Your task to perform on an android device: toggle notifications settings in the gmail app Image 0: 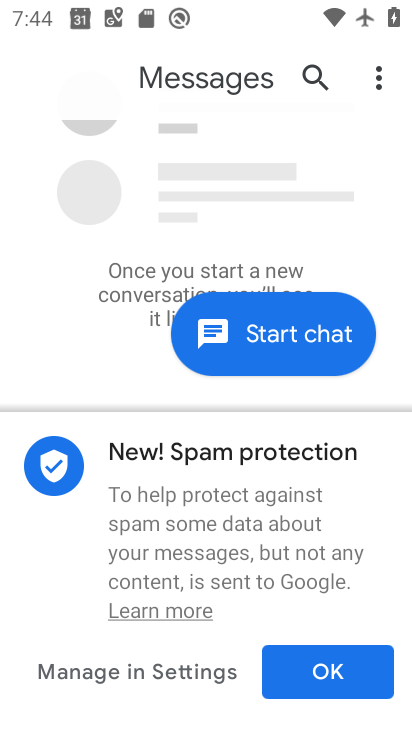
Step 0: press home button
Your task to perform on an android device: toggle notifications settings in the gmail app Image 1: 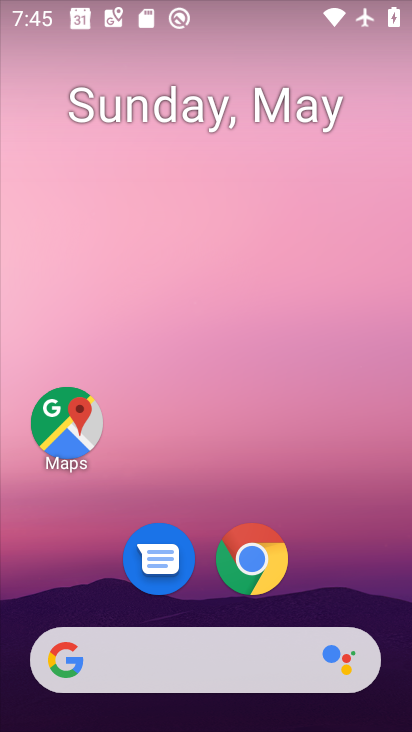
Step 1: drag from (200, 663) to (311, 195)
Your task to perform on an android device: toggle notifications settings in the gmail app Image 2: 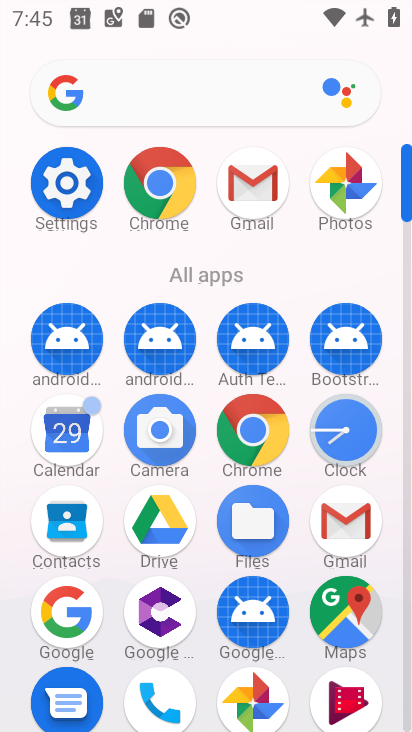
Step 2: click (247, 195)
Your task to perform on an android device: toggle notifications settings in the gmail app Image 3: 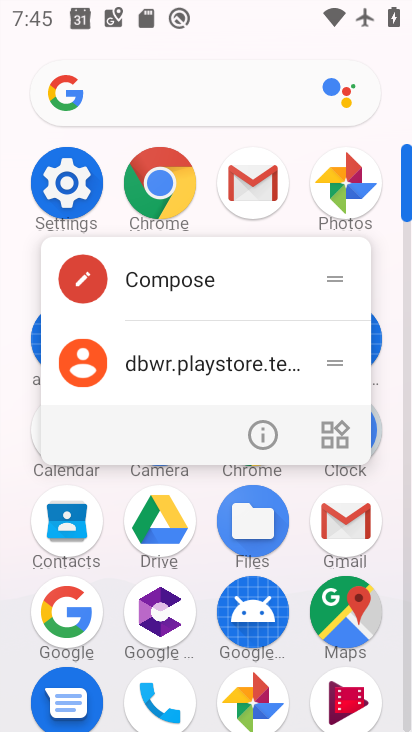
Step 3: click (252, 184)
Your task to perform on an android device: toggle notifications settings in the gmail app Image 4: 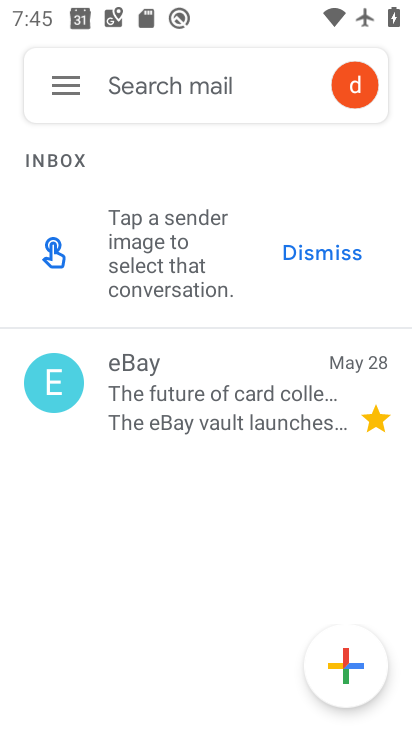
Step 4: click (71, 81)
Your task to perform on an android device: toggle notifications settings in the gmail app Image 5: 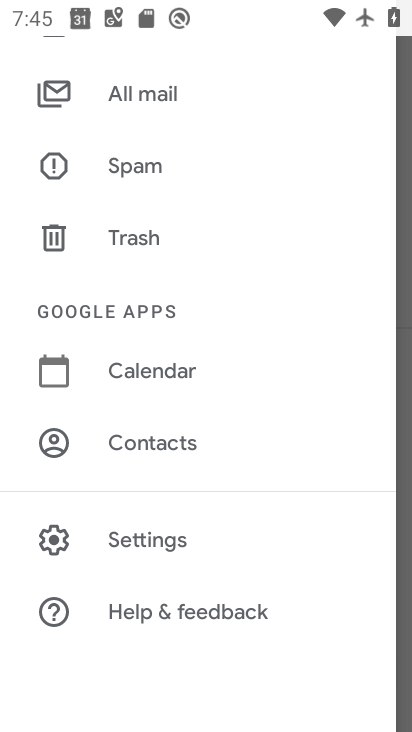
Step 5: click (159, 539)
Your task to perform on an android device: toggle notifications settings in the gmail app Image 6: 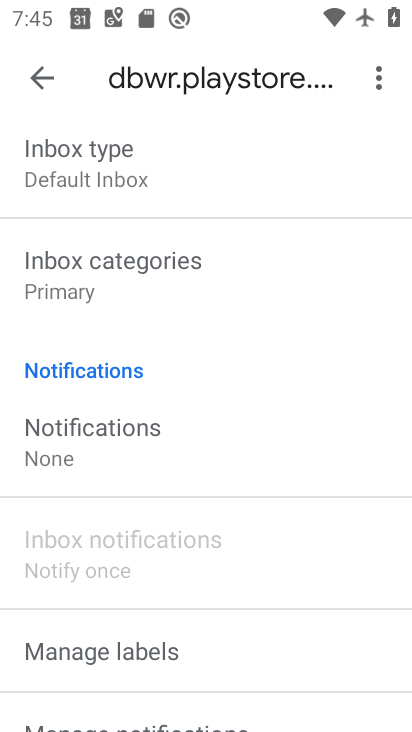
Step 6: click (101, 433)
Your task to perform on an android device: toggle notifications settings in the gmail app Image 7: 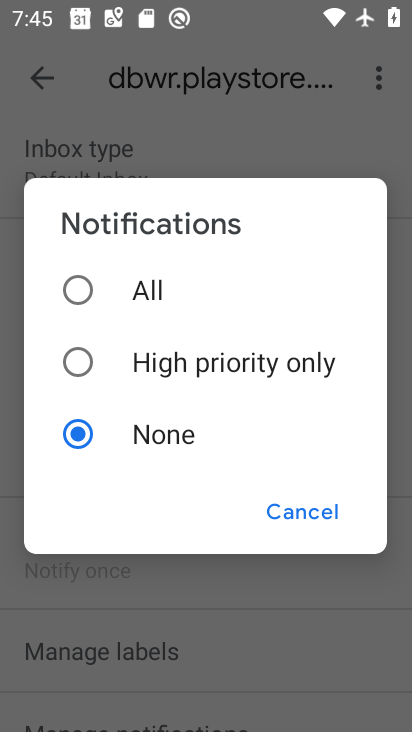
Step 7: click (82, 286)
Your task to perform on an android device: toggle notifications settings in the gmail app Image 8: 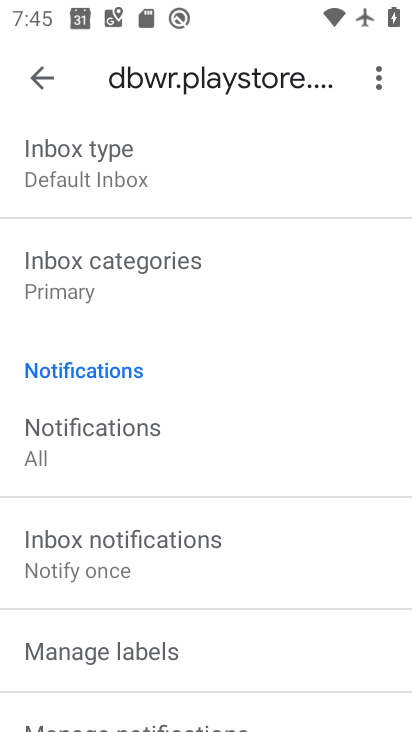
Step 8: task complete